Your task to perform on an android device: Go to network settings Image 0: 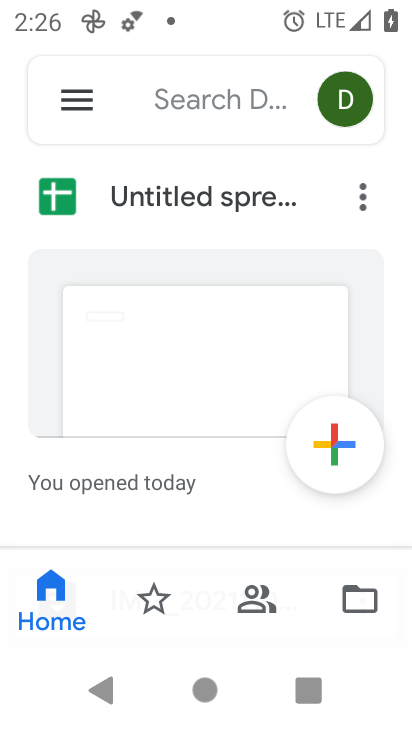
Step 0: press home button
Your task to perform on an android device: Go to network settings Image 1: 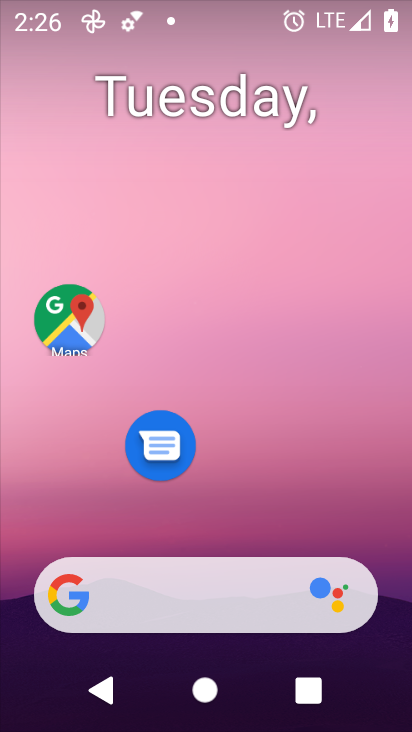
Step 1: drag from (278, 453) to (239, 3)
Your task to perform on an android device: Go to network settings Image 2: 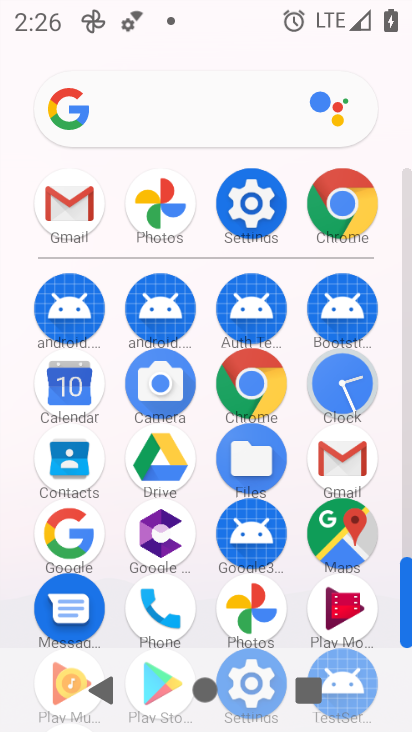
Step 2: click (248, 201)
Your task to perform on an android device: Go to network settings Image 3: 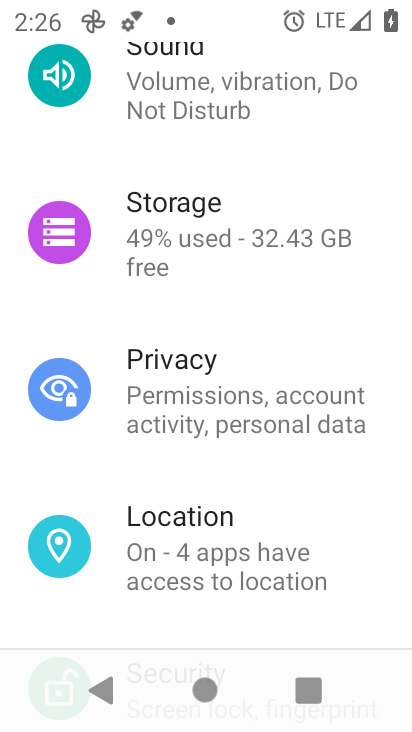
Step 3: drag from (269, 163) to (253, 720)
Your task to perform on an android device: Go to network settings Image 4: 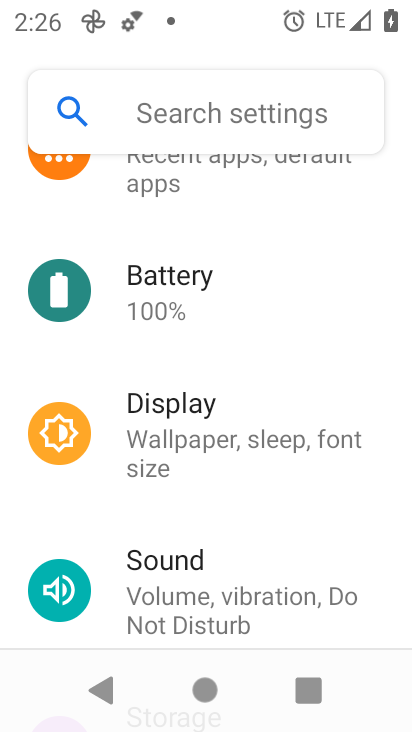
Step 4: drag from (191, 221) to (191, 682)
Your task to perform on an android device: Go to network settings Image 5: 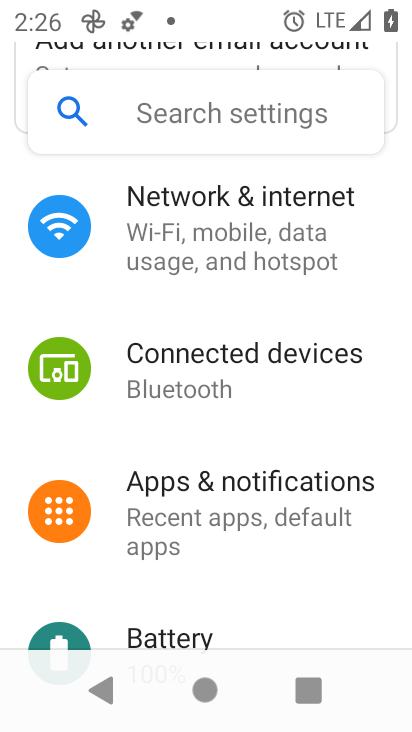
Step 5: click (221, 204)
Your task to perform on an android device: Go to network settings Image 6: 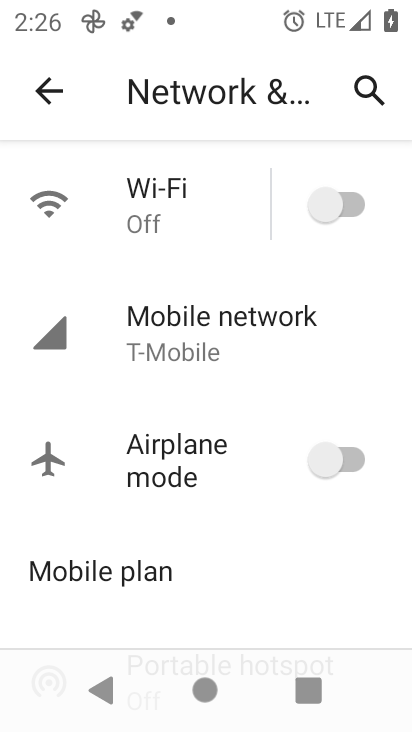
Step 6: task complete